Your task to perform on an android device: open app "Google Find My Device" Image 0: 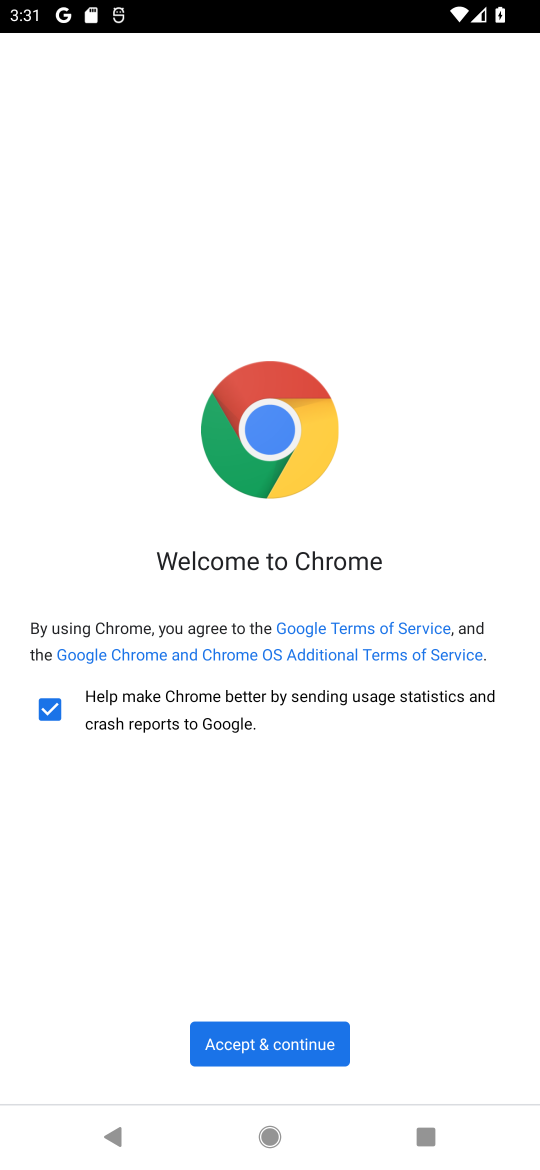
Step 0: press home button
Your task to perform on an android device: open app "Google Find My Device" Image 1: 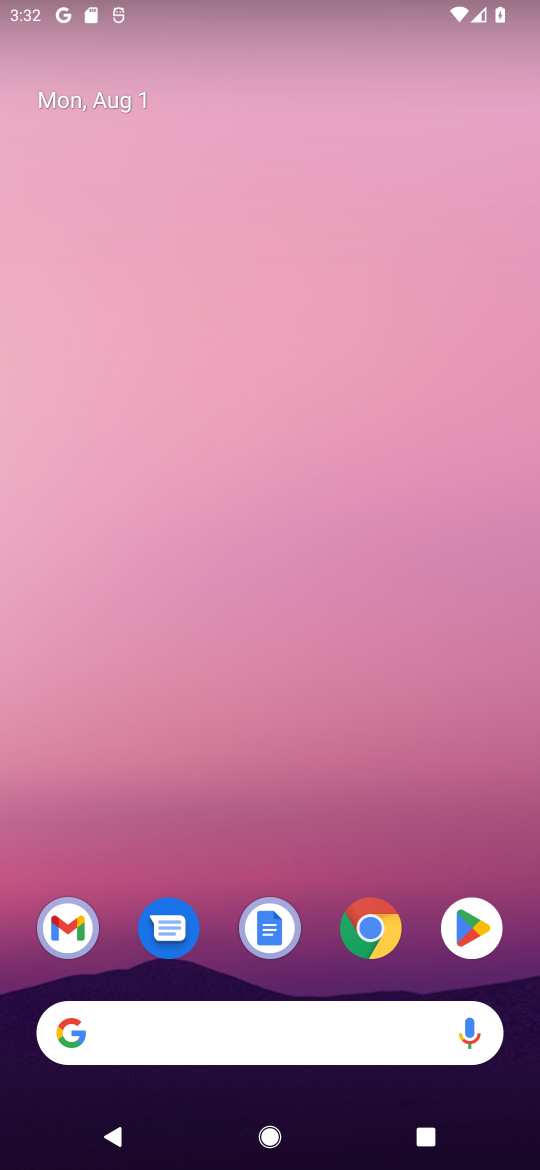
Step 1: click (457, 911)
Your task to perform on an android device: open app "Google Find My Device" Image 2: 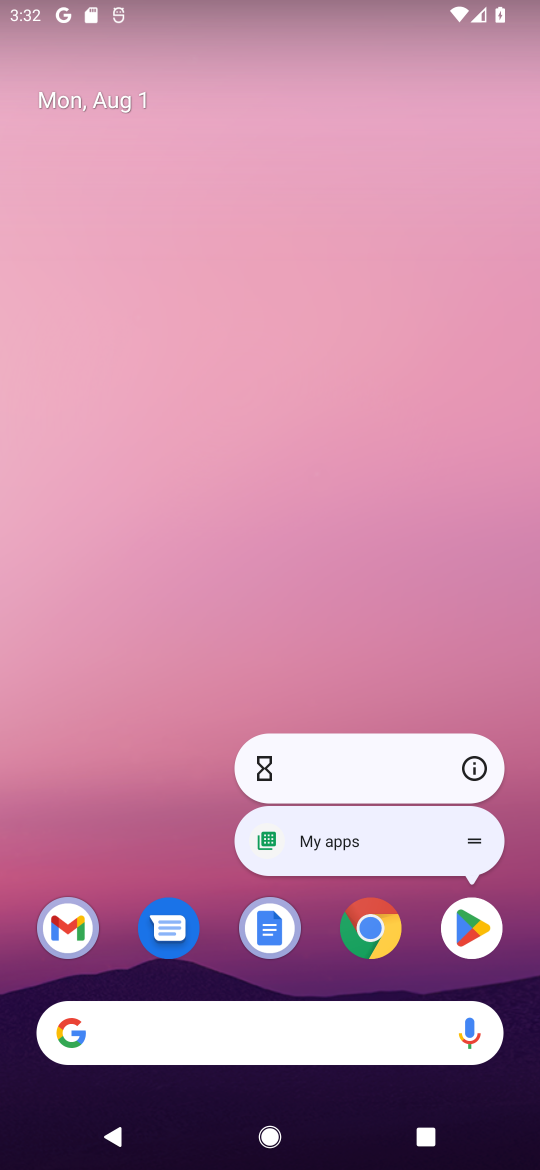
Step 2: click (457, 930)
Your task to perform on an android device: open app "Google Find My Device" Image 3: 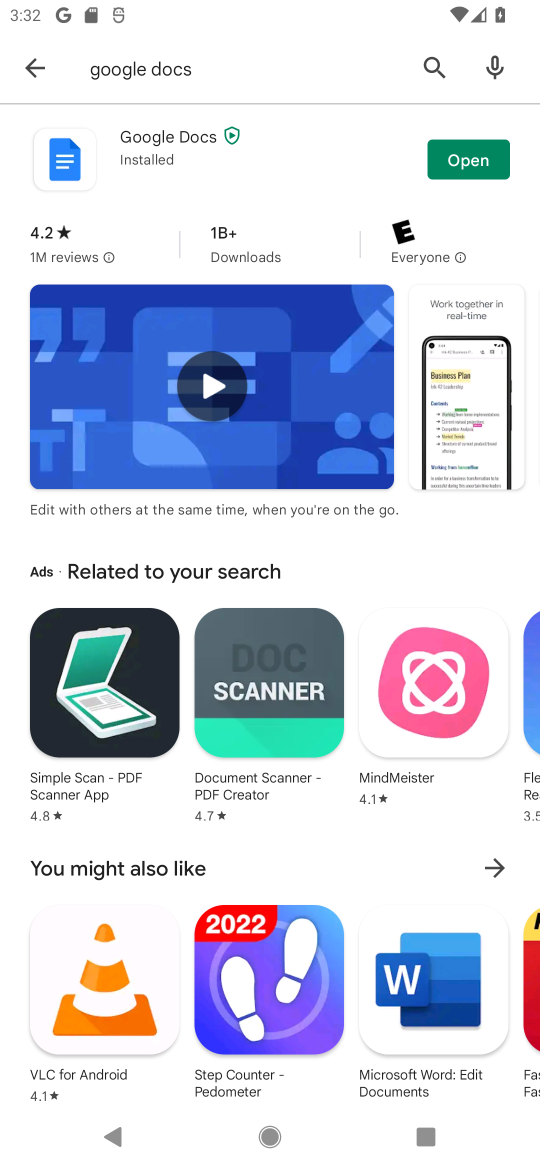
Step 3: click (433, 56)
Your task to perform on an android device: open app "Google Find My Device" Image 4: 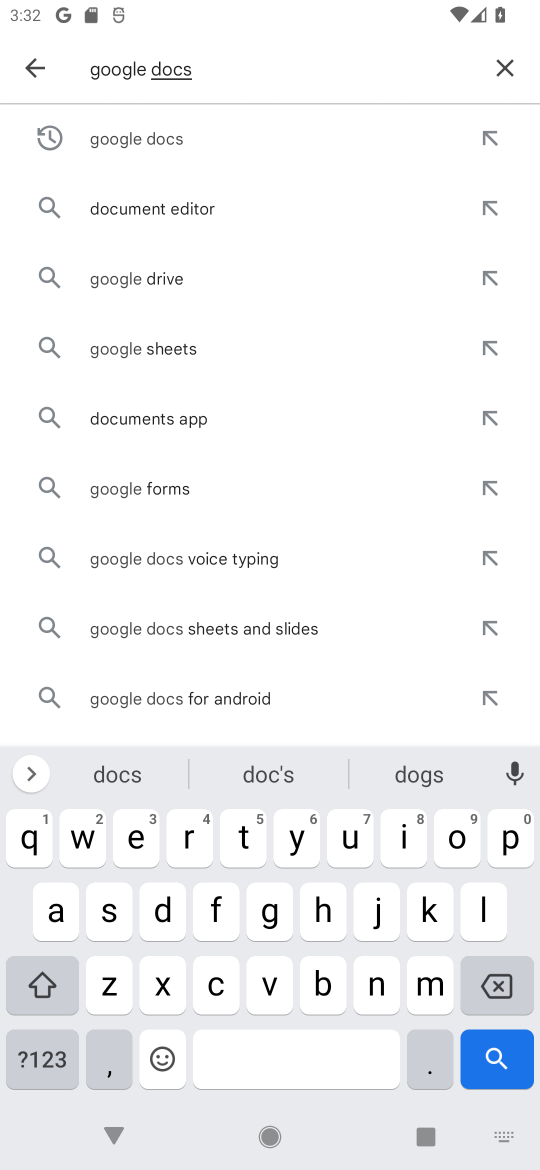
Step 4: click (496, 70)
Your task to perform on an android device: open app "Google Find My Device" Image 5: 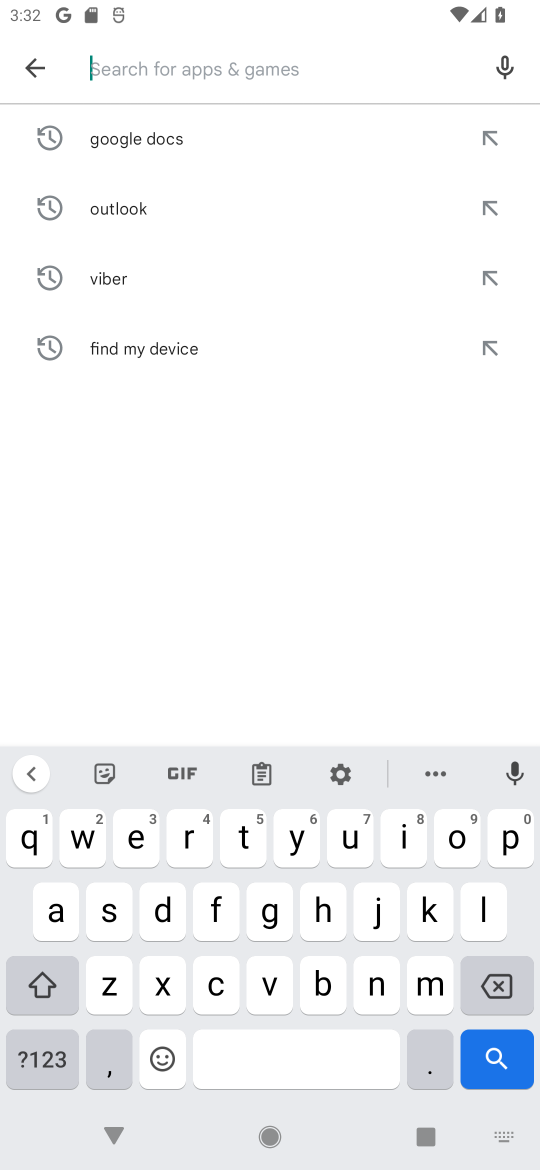
Step 5: click (154, 343)
Your task to perform on an android device: open app "Google Find My Device" Image 6: 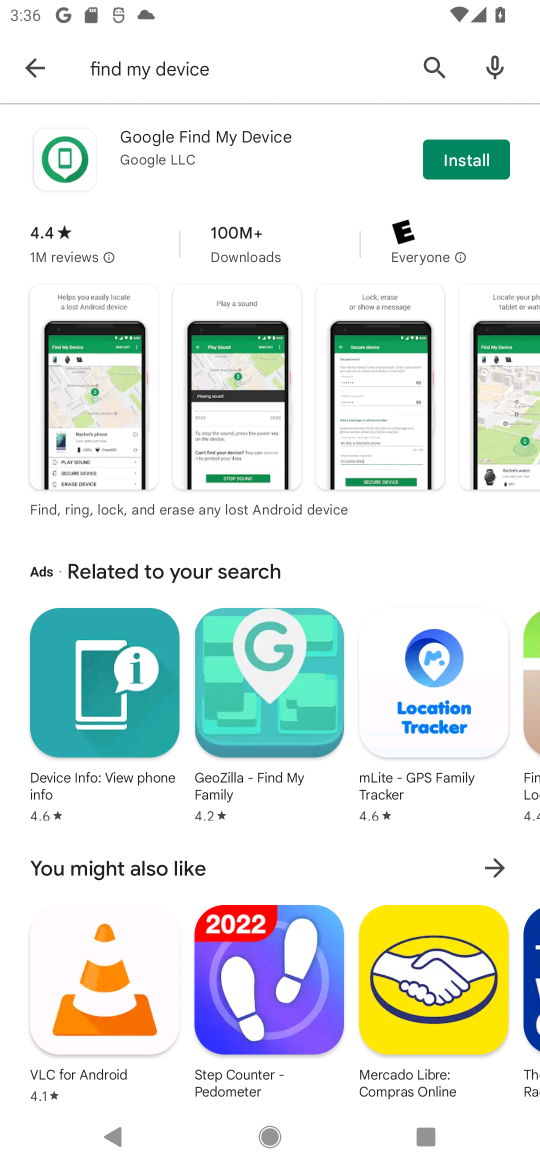
Step 6: task complete